Your task to perform on an android device: Open the phone app and click the voicemail tab. Image 0: 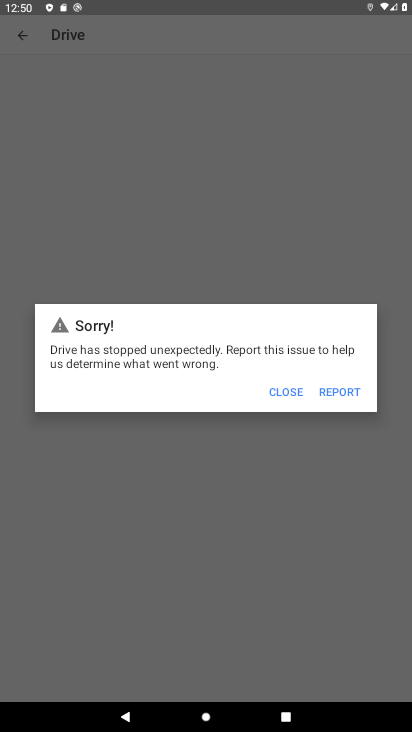
Step 0: press home button
Your task to perform on an android device: Open the phone app and click the voicemail tab. Image 1: 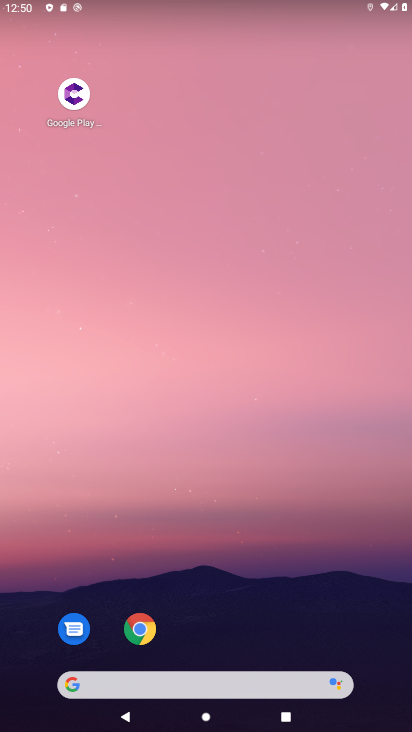
Step 1: drag from (206, 635) to (302, 82)
Your task to perform on an android device: Open the phone app and click the voicemail tab. Image 2: 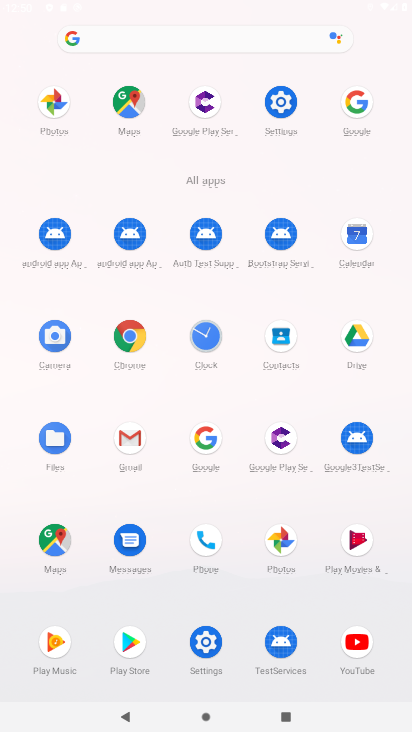
Step 2: click (209, 543)
Your task to perform on an android device: Open the phone app and click the voicemail tab. Image 3: 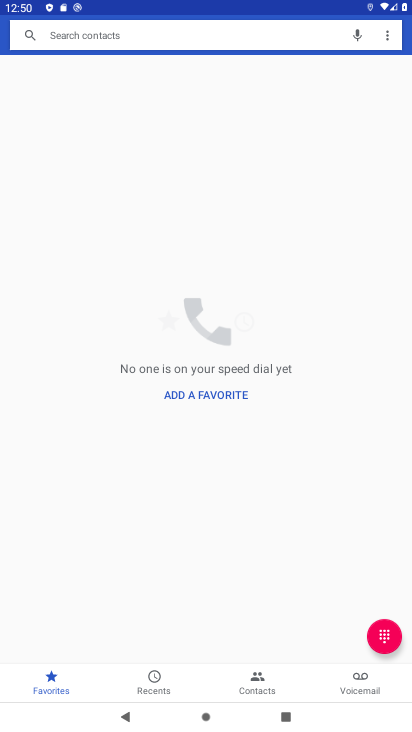
Step 3: click (356, 687)
Your task to perform on an android device: Open the phone app and click the voicemail tab. Image 4: 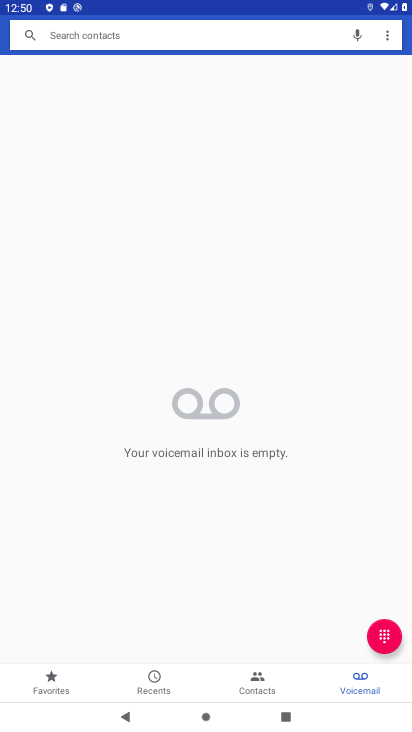
Step 4: task complete